Your task to perform on an android device: Clear all items from cart on amazon. Search for acer nitro on amazon, select the first entry, add it to the cart, then select checkout. Image 0: 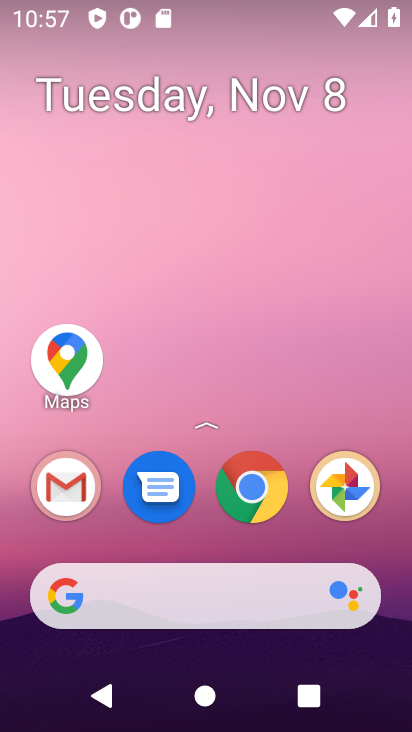
Step 0: click (210, 599)
Your task to perform on an android device: Clear all items from cart on amazon. Search for acer nitro on amazon, select the first entry, add it to the cart, then select checkout. Image 1: 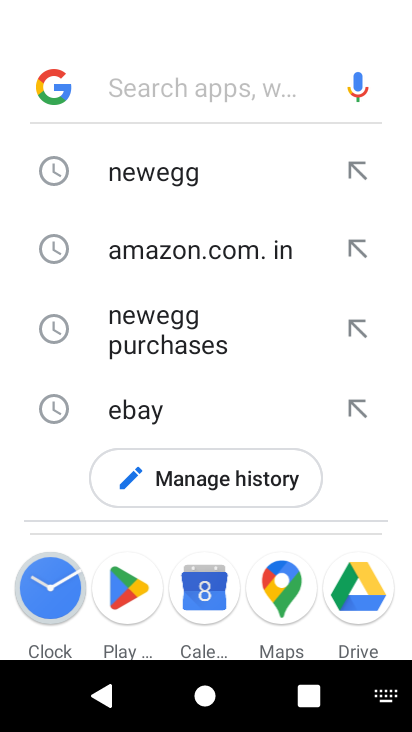
Step 1: type "amazon"
Your task to perform on an android device: Clear all items from cart on amazon. Search for acer nitro on amazon, select the first entry, add it to the cart, then select checkout. Image 2: 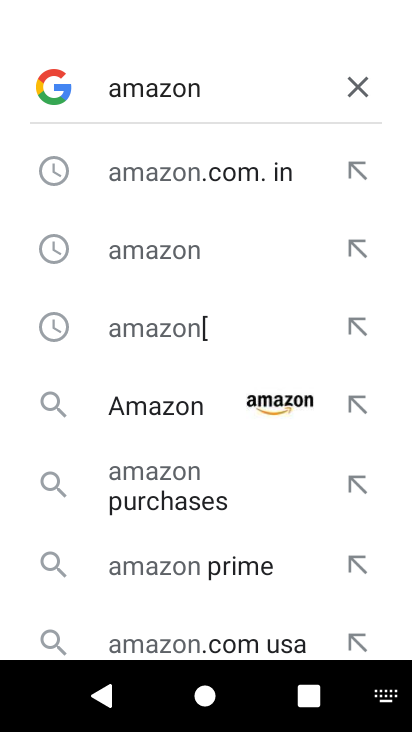
Step 2: click (162, 404)
Your task to perform on an android device: Clear all items from cart on amazon. Search for acer nitro on amazon, select the first entry, add it to the cart, then select checkout. Image 3: 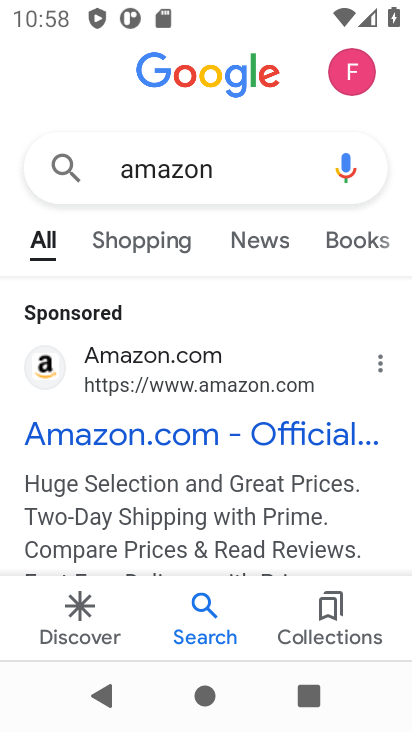
Step 3: click (149, 443)
Your task to perform on an android device: Clear all items from cart on amazon. Search for acer nitro on amazon, select the first entry, add it to the cart, then select checkout. Image 4: 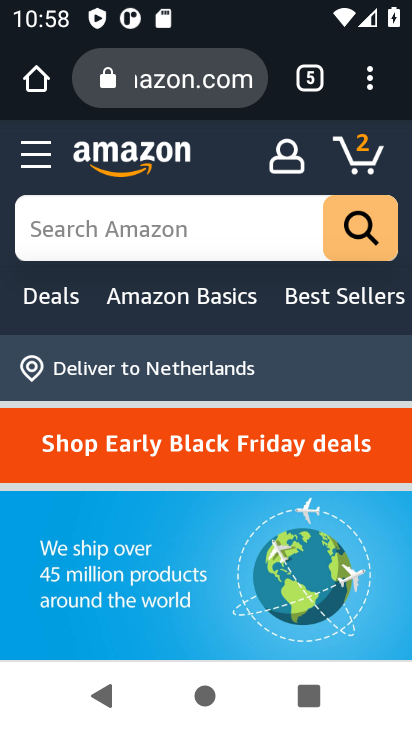
Step 4: click (205, 231)
Your task to perform on an android device: Clear all items from cart on amazon. Search for acer nitro on amazon, select the first entry, add it to the cart, then select checkout. Image 5: 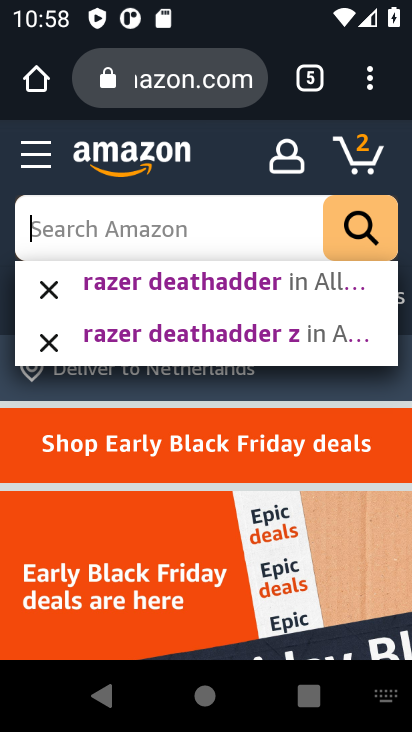
Step 5: type "acer nitro"
Your task to perform on an android device: Clear all items from cart on amazon. Search for acer nitro on amazon, select the first entry, add it to the cart, then select checkout. Image 6: 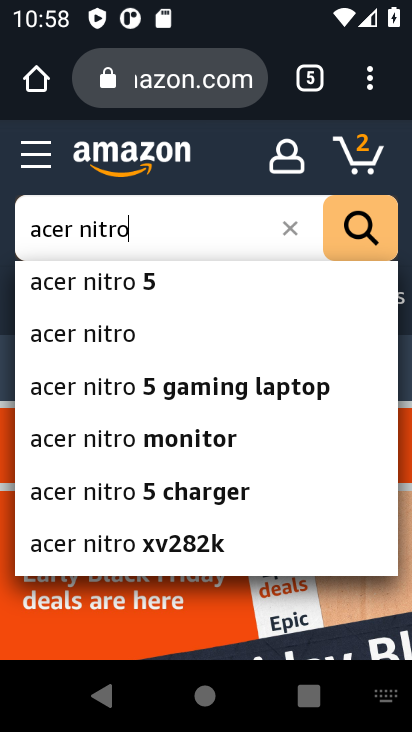
Step 6: click (152, 341)
Your task to perform on an android device: Clear all items from cart on amazon. Search for acer nitro on amazon, select the first entry, add it to the cart, then select checkout. Image 7: 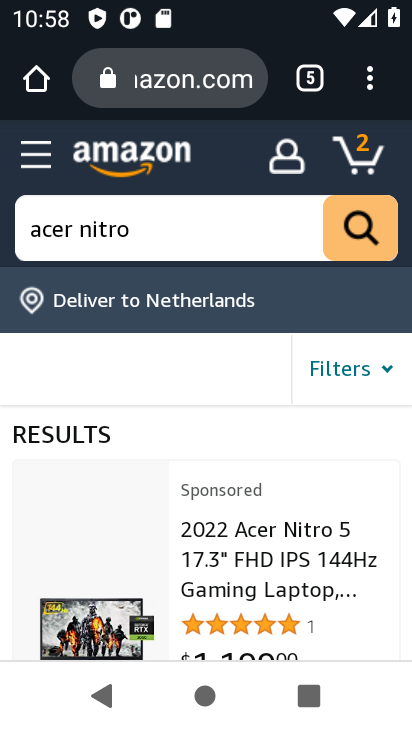
Step 7: drag from (179, 537) to (187, 245)
Your task to perform on an android device: Clear all items from cart on amazon. Search for acer nitro on amazon, select the first entry, add it to the cart, then select checkout. Image 8: 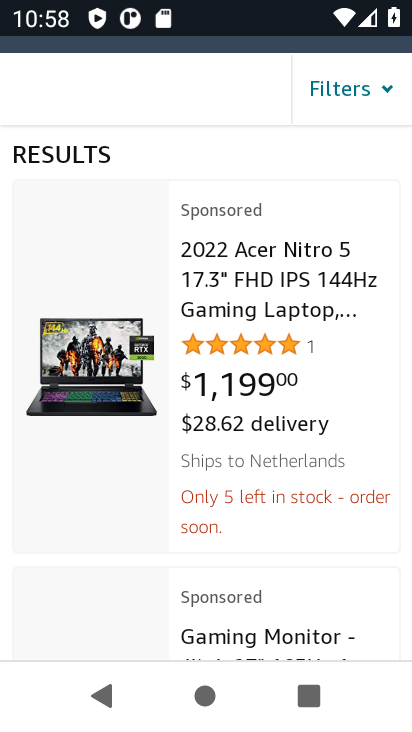
Step 8: click (198, 294)
Your task to perform on an android device: Clear all items from cart on amazon. Search for acer nitro on amazon, select the first entry, add it to the cart, then select checkout. Image 9: 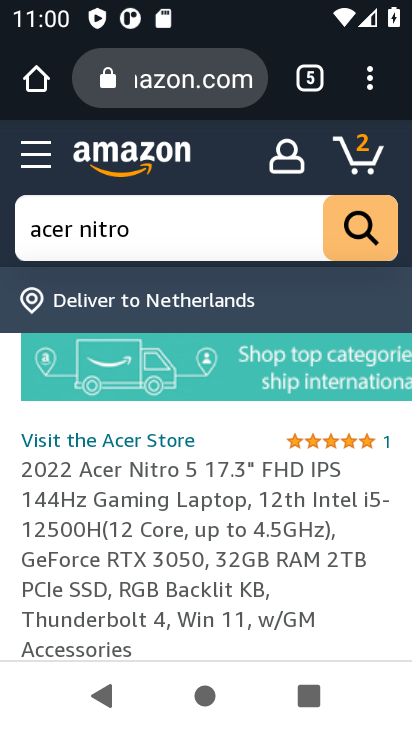
Step 9: drag from (270, 386) to (277, 306)
Your task to perform on an android device: Clear all items from cart on amazon. Search for acer nitro on amazon, select the first entry, add it to the cart, then select checkout. Image 10: 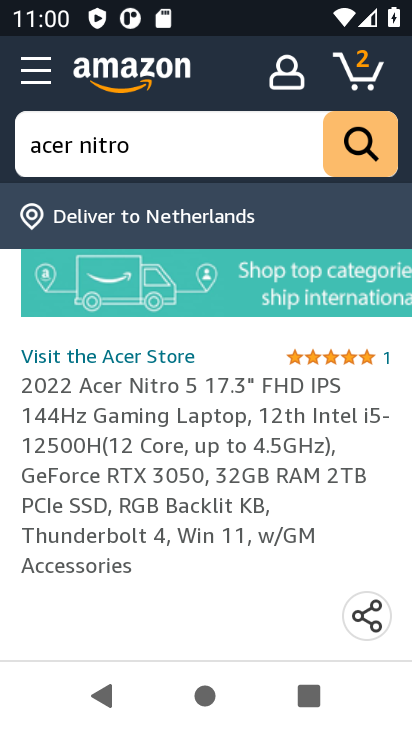
Step 10: drag from (210, 520) to (251, 311)
Your task to perform on an android device: Clear all items from cart on amazon. Search for acer nitro on amazon, select the first entry, add it to the cart, then select checkout. Image 11: 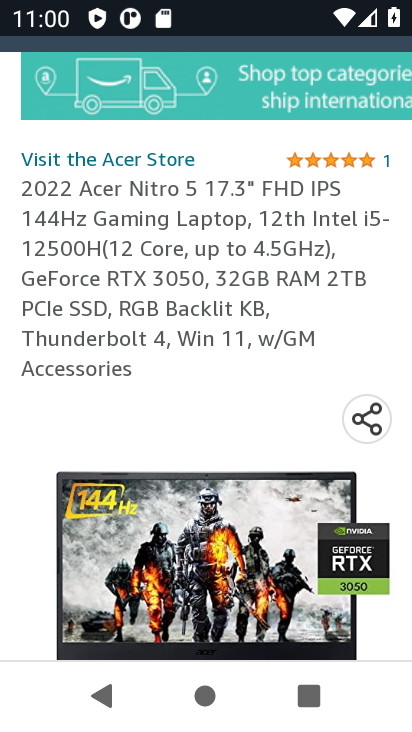
Step 11: drag from (140, 331) to (140, 293)
Your task to perform on an android device: Clear all items from cart on amazon. Search for acer nitro on amazon, select the first entry, add it to the cart, then select checkout. Image 12: 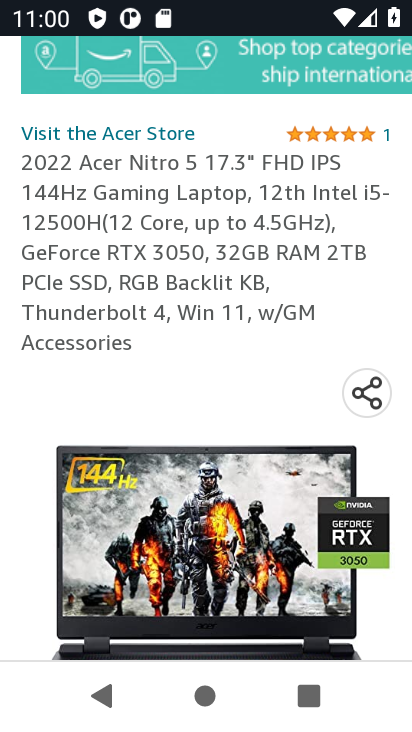
Step 12: drag from (115, 322) to (138, 239)
Your task to perform on an android device: Clear all items from cart on amazon. Search for acer nitro on amazon, select the first entry, add it to the cart, then select checkout. Image 13: 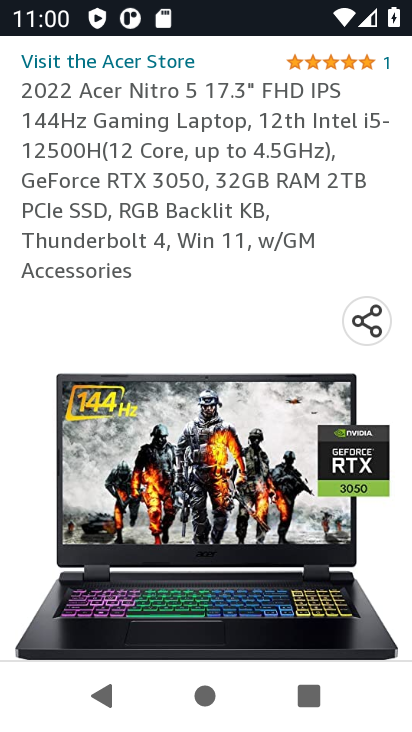
Step 13: drag from (148, 575) to (224, 184)
Your task to perform on an android device: Clear all items from cart on amazon. Search for acer nitro on amazon, select the first entry, add it to the cart, then select checkout. Image 14: 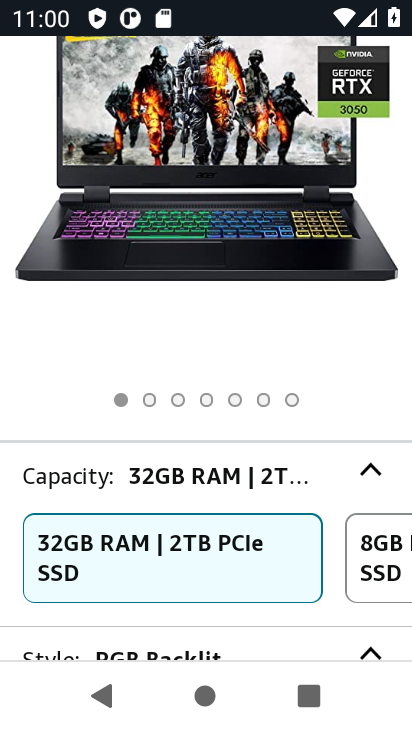
Step 14: drag from (209, 400) to (257, 148)
Your task to perform on an android device: Clear all items from cart on amazon. Search for acer nitro on amazon, select the first entry, add it to the cart, then select checkout. Image 15: 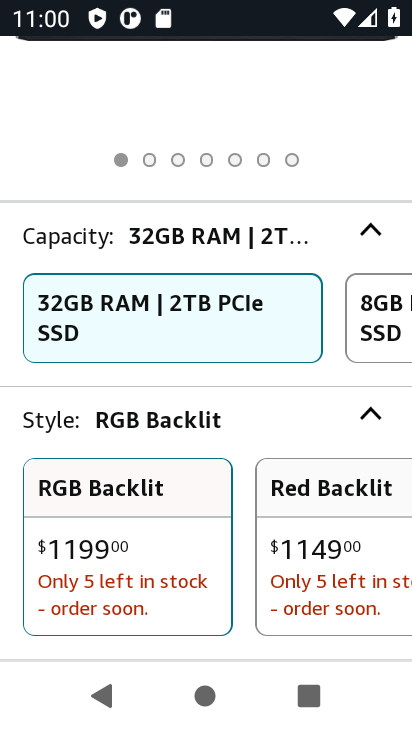
Step 15: drag from (188, 591) to (232, 317)
Your task to perform on an android device: Clear all items from cart on amazon. Search for acer nitro on amazon, select the first entry, add it to the cart, then select checkout. Image 16: 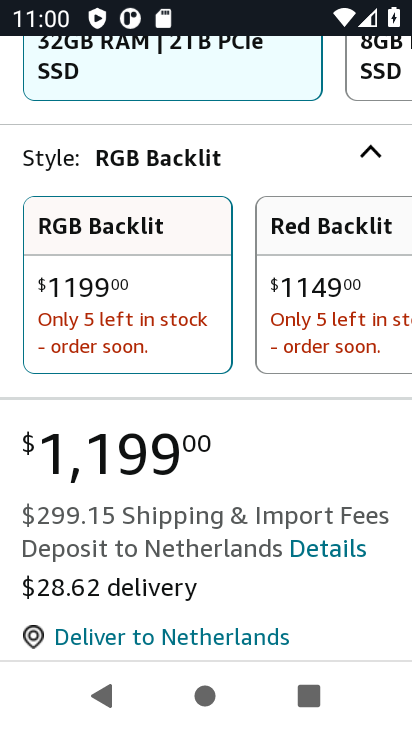
Step 16: drag from (182, 448) to (286, 76)
Your task to perform on an android device: Clear all items from cart on amazon. Search for acer nitro on amazon, select the first entry, add it to the cart, then select checkout. Image 17: 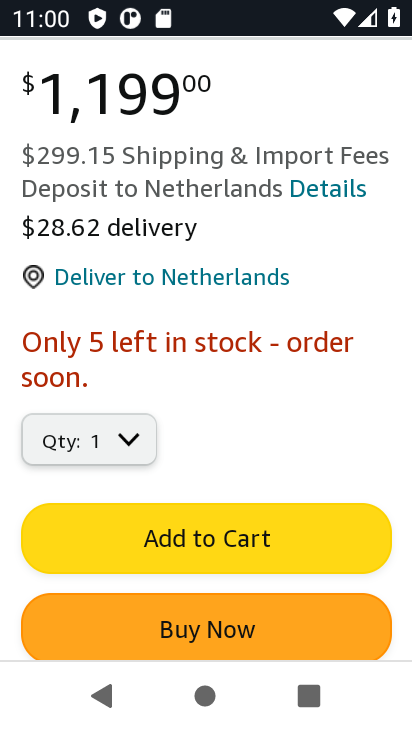
Step 17: click (196, 551)
Your task to perform on an android device: Clear all items from cart on amazon. Search for acer nitro on amazon, select the first entry, add it to the cart, then select checkout. Image 18: 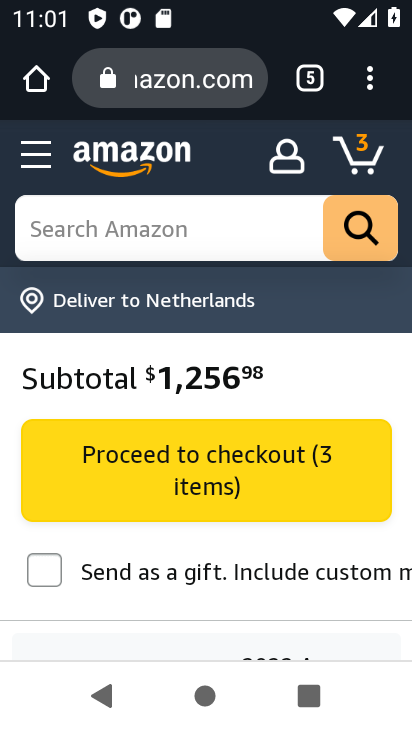
Step 18: click (350, 169)
Your task to perform on an android device: Clear all items from cart on amazon. Search for acer nitro on amazon, select the first entry, add it to the cart, then select checkout. Image 19: 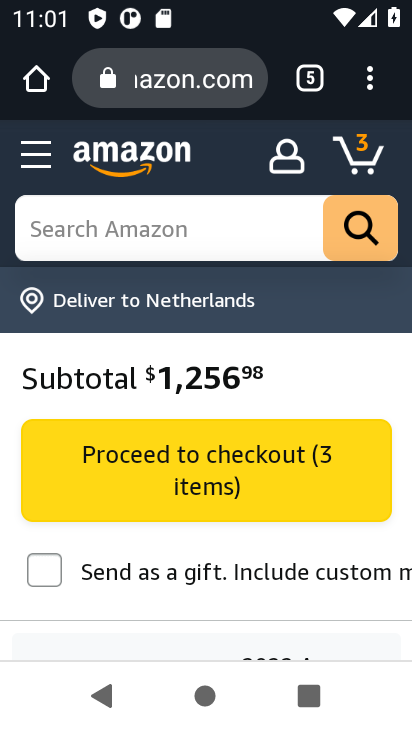
Step 19: click (219, 461)
Your task to perform on an android device: Clear all items from cart on amazon. Search for acer nitro on amazon, select the first entry, add it to the cart, then select checkout. Image 20: 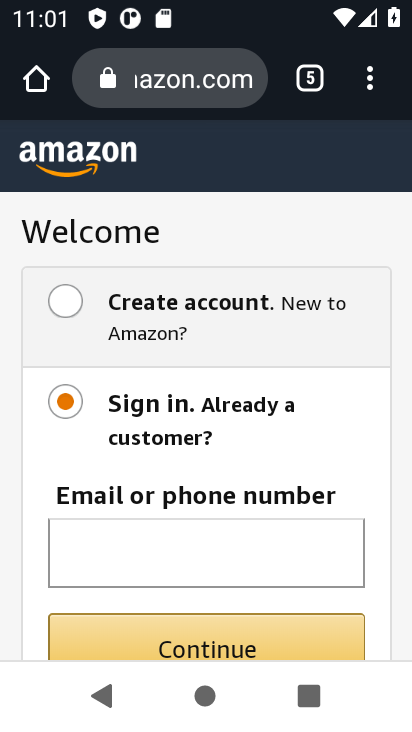
Step 20: task complete